Your task to perform on an android device: Open the stopwatch Image 0: 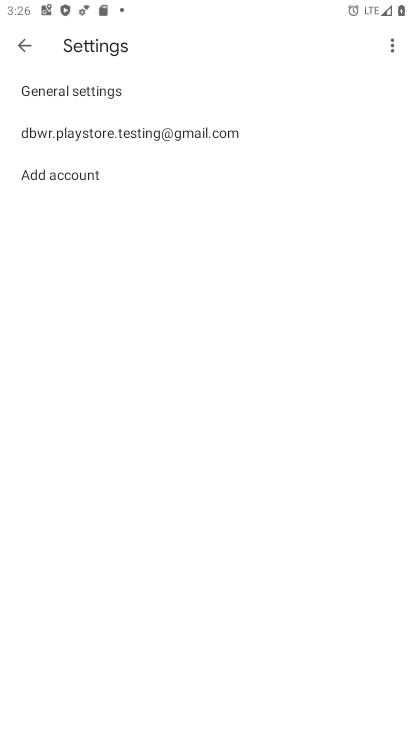
Step 0: press home button
Your task to perform on an android device: Open the stopwatch Image 1: 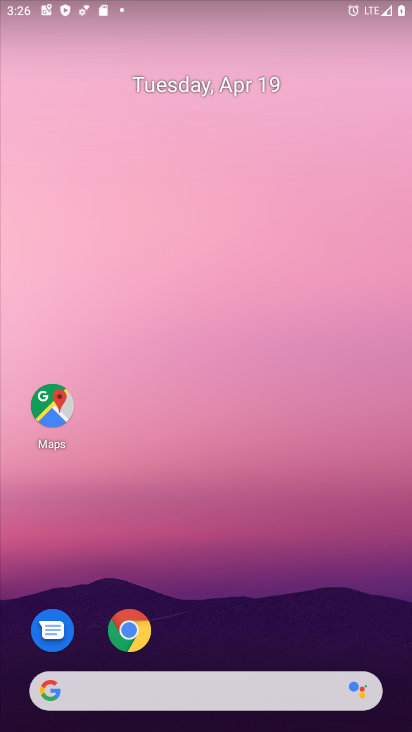
Step 1: drag from (214, 726) to (213, 97)
Your task to perform on an android device: Open the stopwatch Image 2: 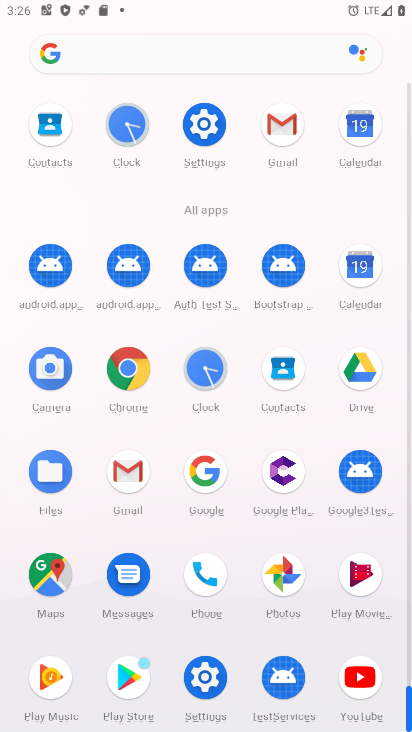
Step 2: click (204, 364)
Your task to perform on an android device: Open the stopwatch Image 3: 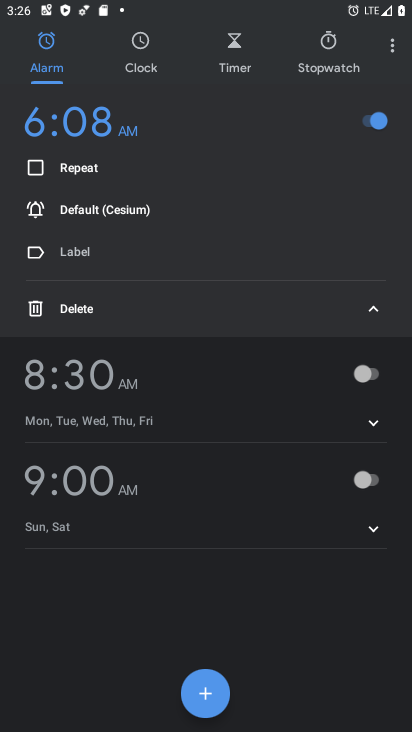
Step 3: click (332, 56)
Your task to perform on an android device: Open the stopwatch Image 4: 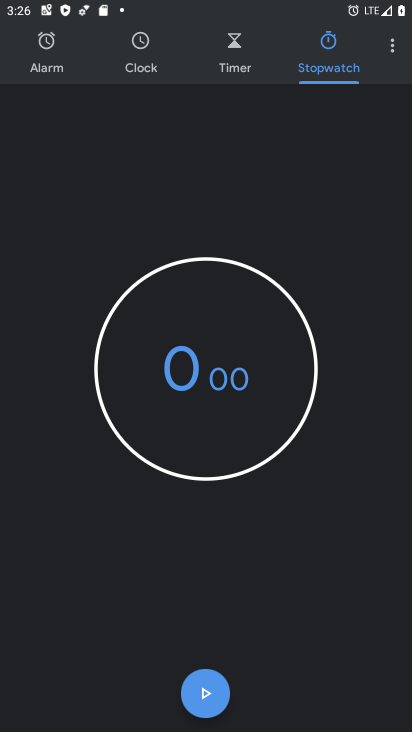
Step 4: task complete